Your task to perform on an android device: Clear the shopping cart on newegg.com. Add panasonic triple a to the cart on newegg.com, then select checkout. Image 0: 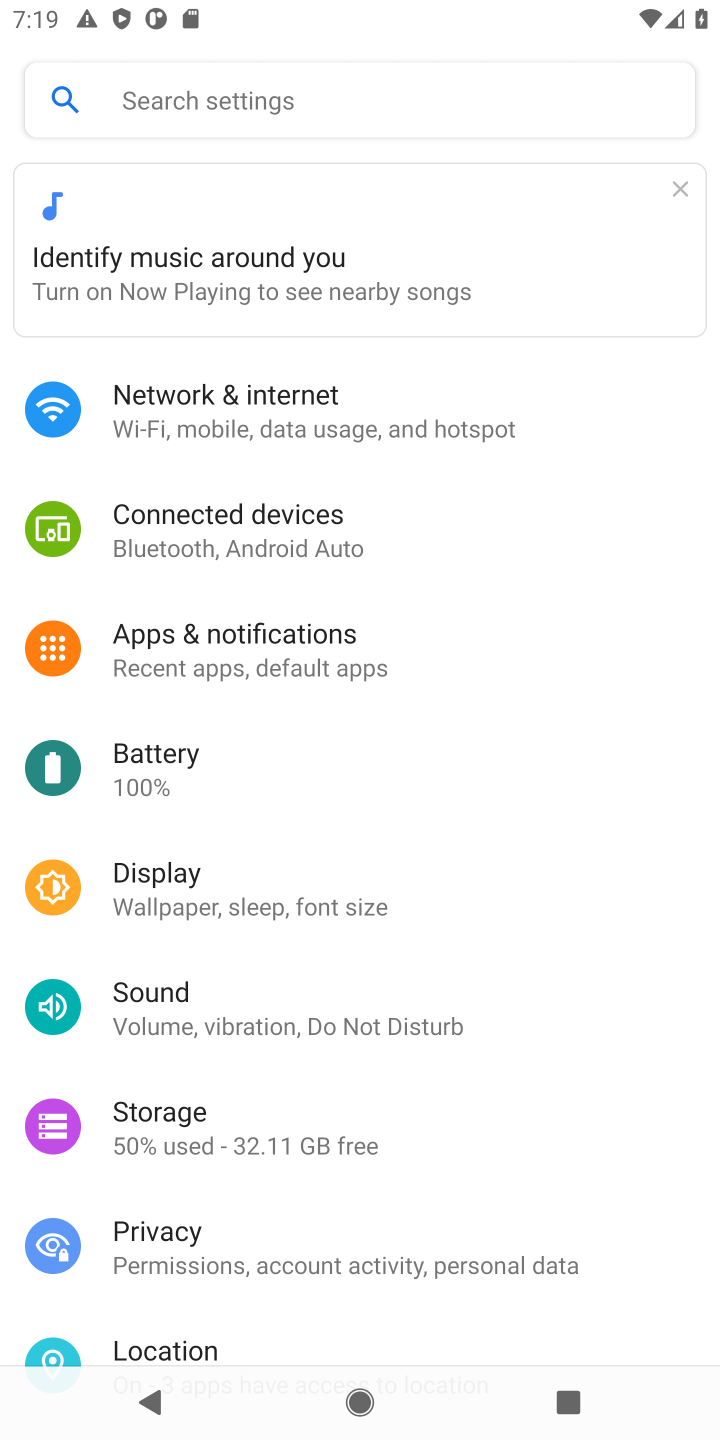
Step 0: press home button
Your task to perform on an android device: Clear the shopping cart on newegg.com. Add panasonic triple a to the cart on newegg.com, then select checkout. Image 1: 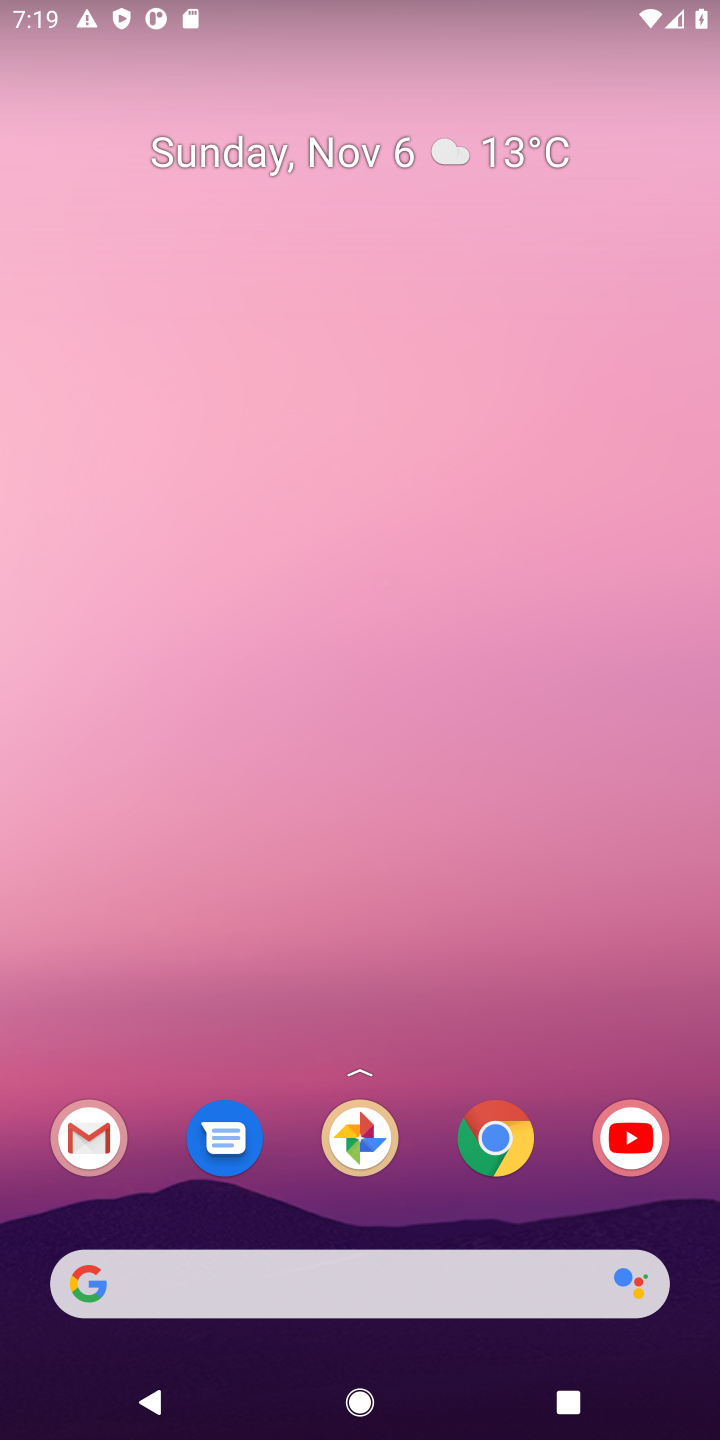
Step 1: click (489, 1165)
Your task to perform on an android device: Clear the shopping cart on newegg.com. Add panasonic triple a to the cart on newegg.com, then select checkout. Image 2: 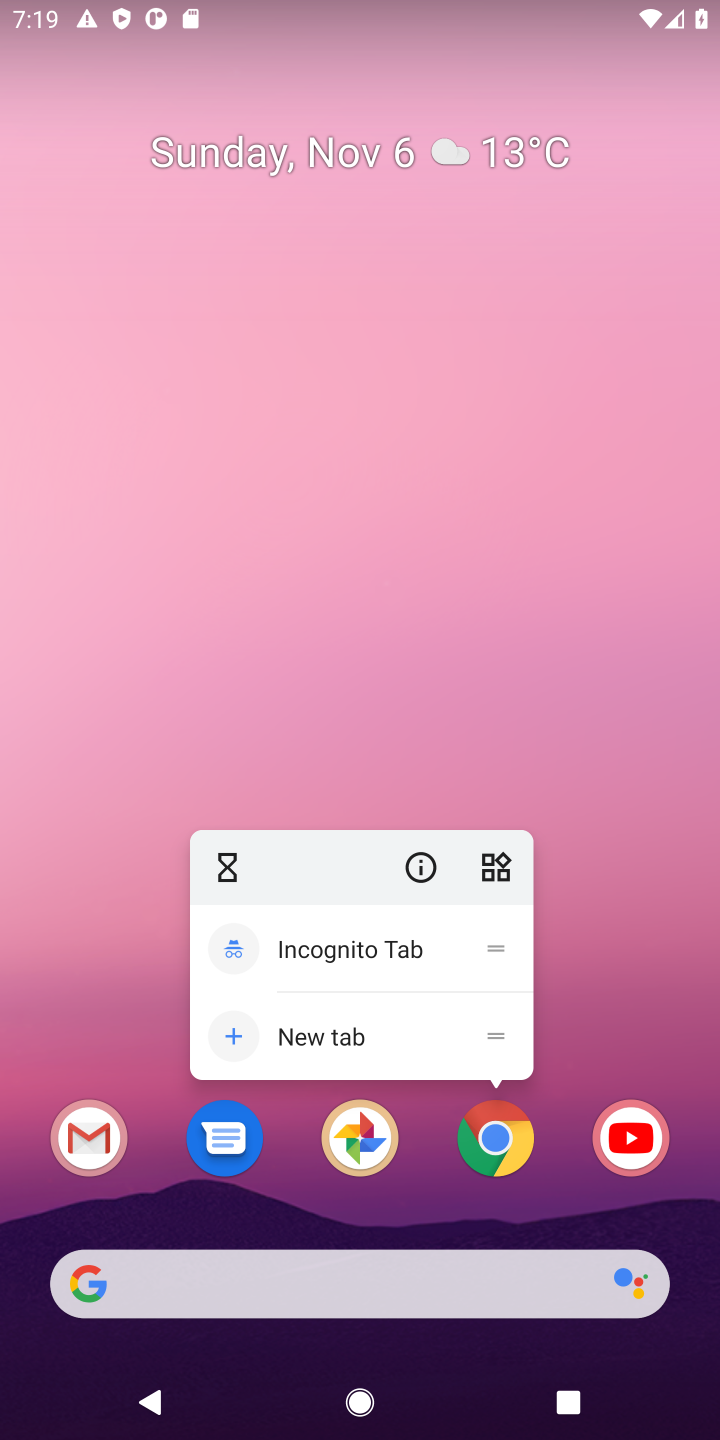
Step 2: click (494, 1153)
Your task to perform on an android device: Clear the shopping cart on newegg.com. Add panasonic triple a to the cart on newegg.com, then select checkout. Image 3: 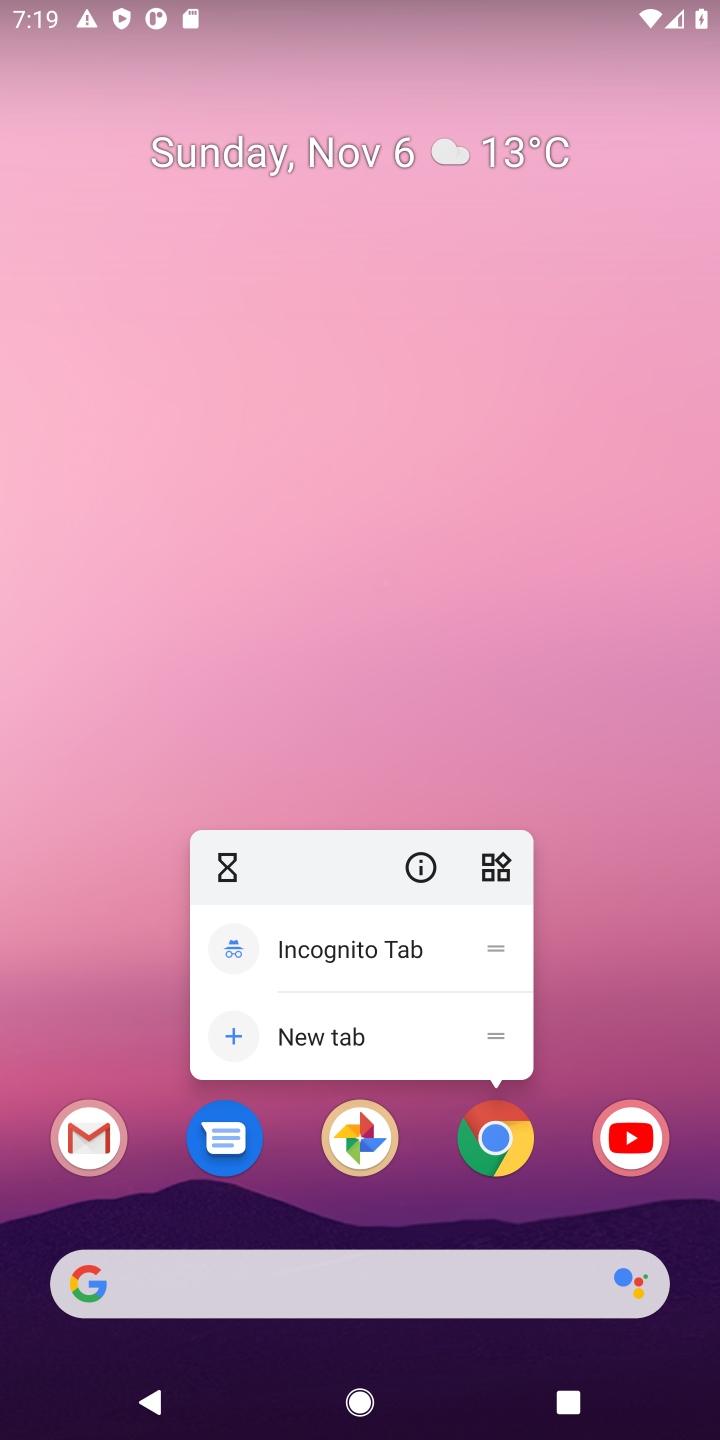
Step 3: click (494, 1150)
Your task to perform on an android device: Clear the shopping cart on newegg.com. Add panasonic triple a to the cart on newegg.com, then select checkout. Image 4: 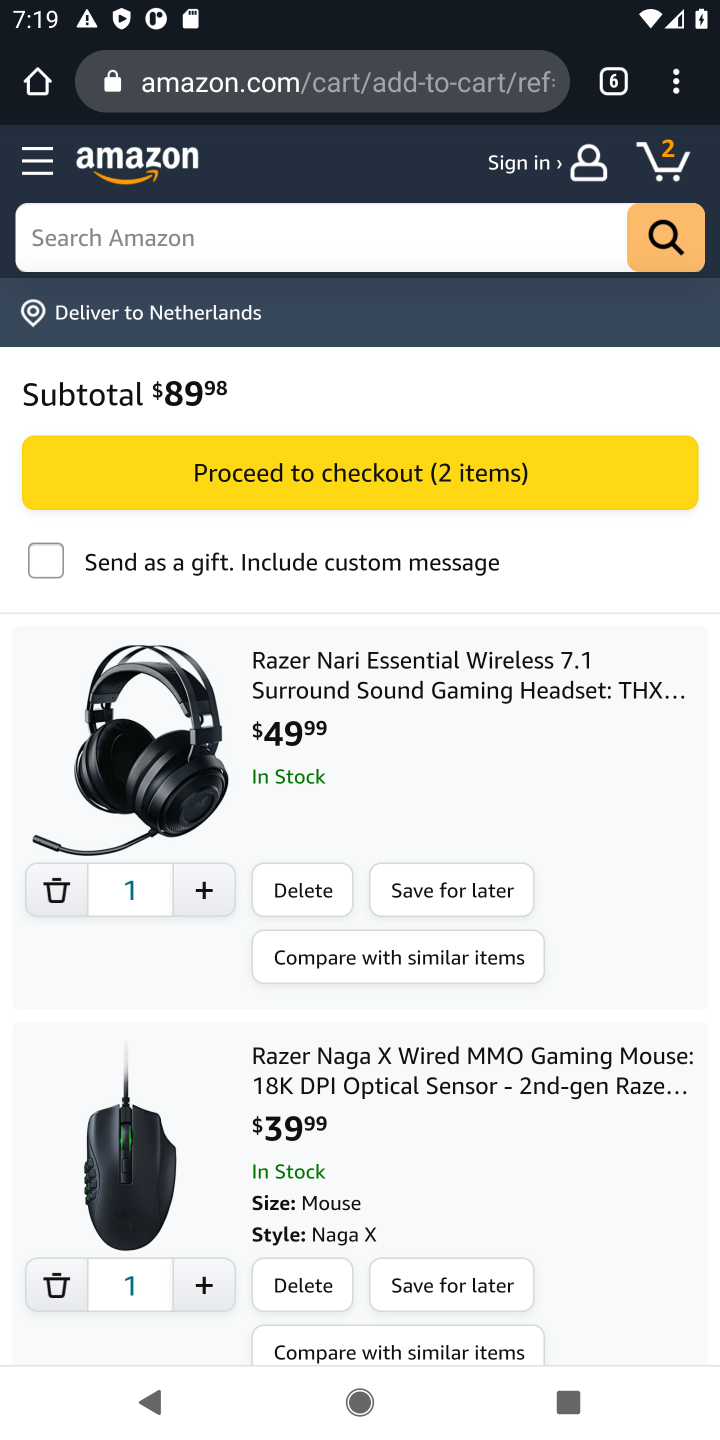
Step 4: click (316, 235)
Your task to perform on an android device: Clear the shopping cart on newegg.com. Add panasonic triple a to the cart on newegg.com, then select checkout. Image 5: 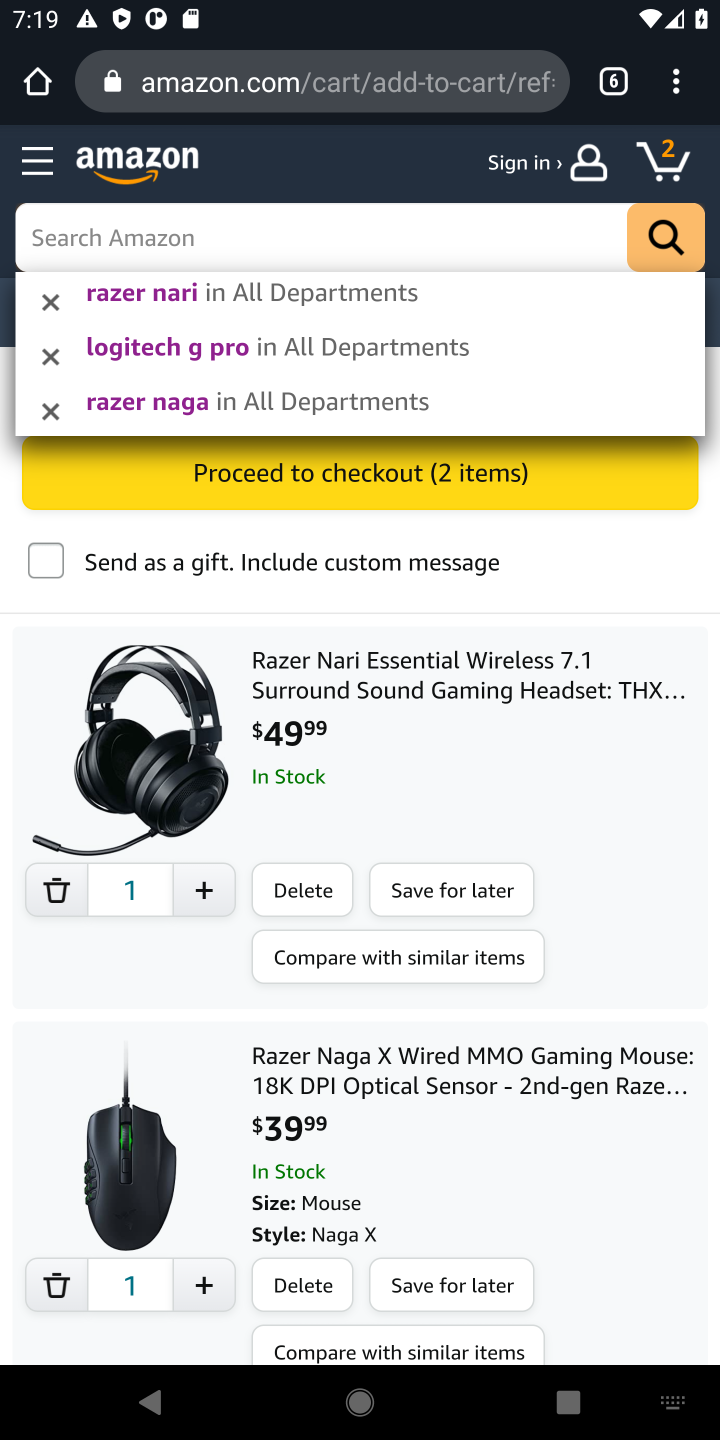
Step 5: type "news egg"
Your task to perform on an android device: Clear the shopping cart on newegg.com. Add panasonic triple a to the cart on newegg.com, then select checkout. Image 6: 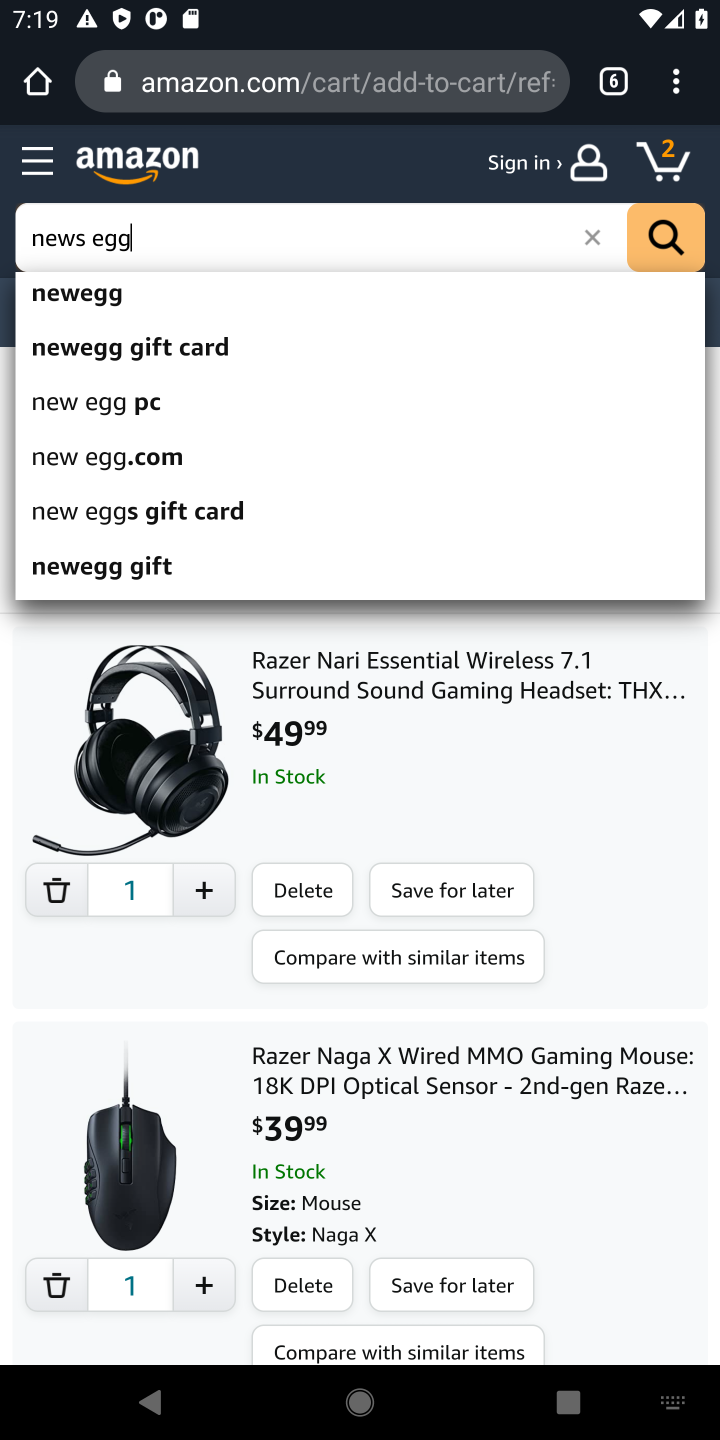
Step 6: click (626, 77)
Your task to perform on an android device: Clear the shopping cart on newegg.com. Add panasonic triple a to the cart on newegg.com, then select checkout. Image 7: 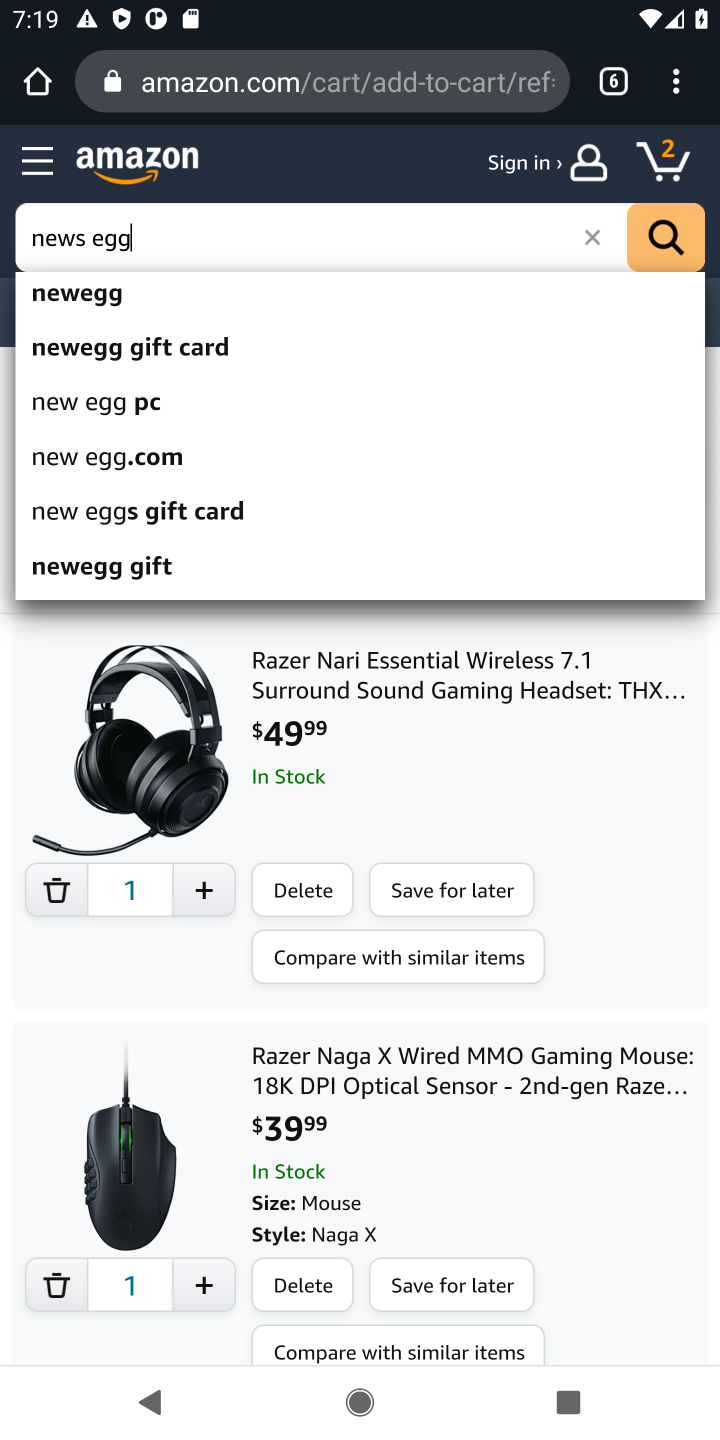
Step 7: click (604, 83)
Your task to perform on an android device: Clear the shopping cart on newegg.com. Add panasonic triple a to the cart on newegg.com, then select checkout. Image 8: 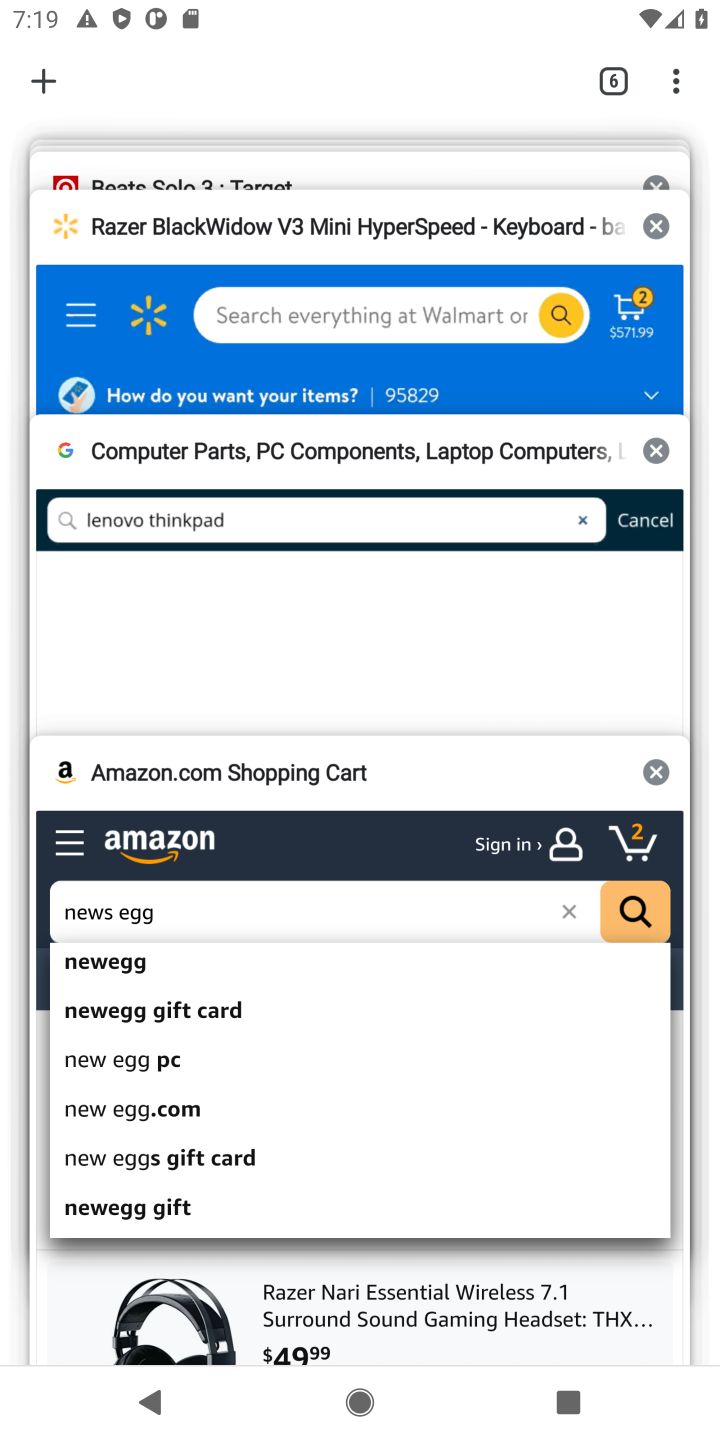
Step 8: drag from (313, 257) to (383, 1341)
Your task to perform on an android device: Clear the shopping cart on newegg.com. Add panasonic triple a to the cart on newegg.com, then select checkout. Image 9: 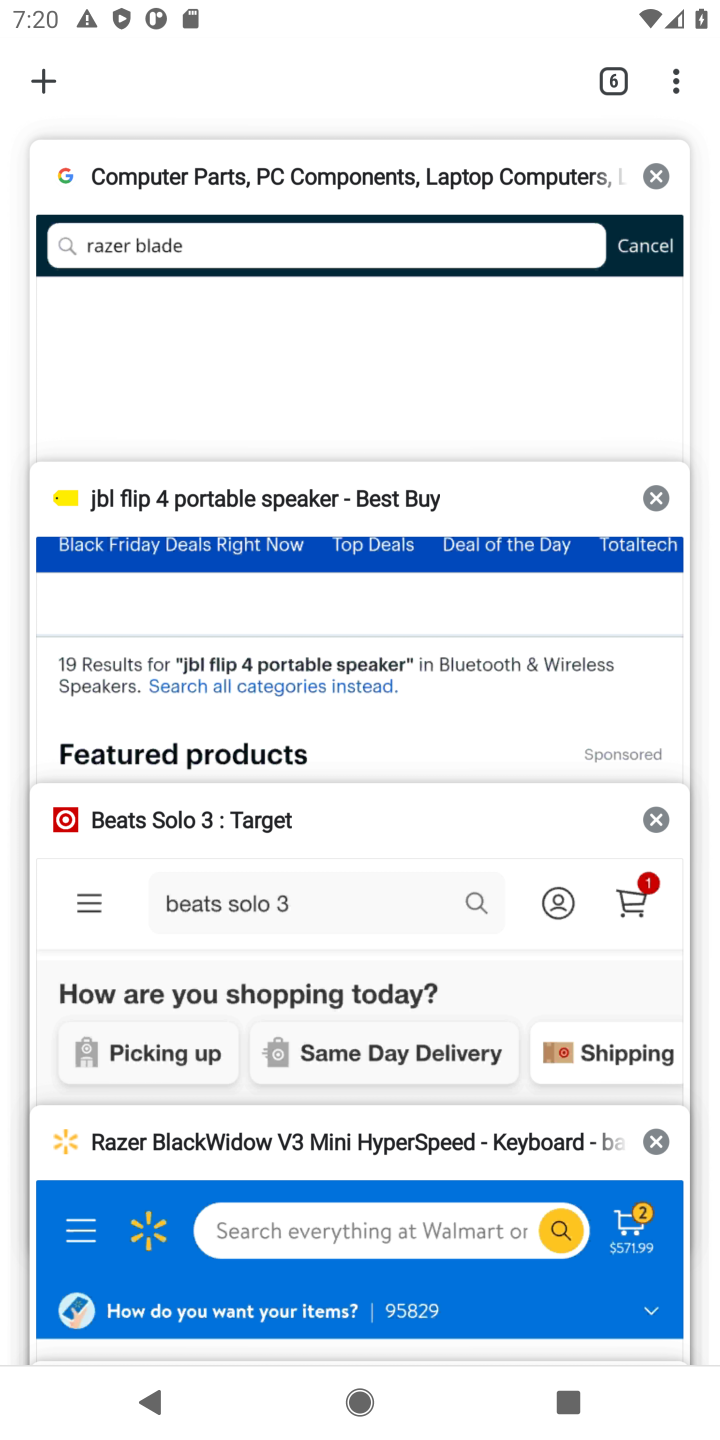
Step 9: drag from (230, 322) to (218, 1389)
Your task to perform on an android device: Clear the shopping cart on newegg.com. Add panasonic triple a to the cart on newegg.com, then select checkout. Image 10: 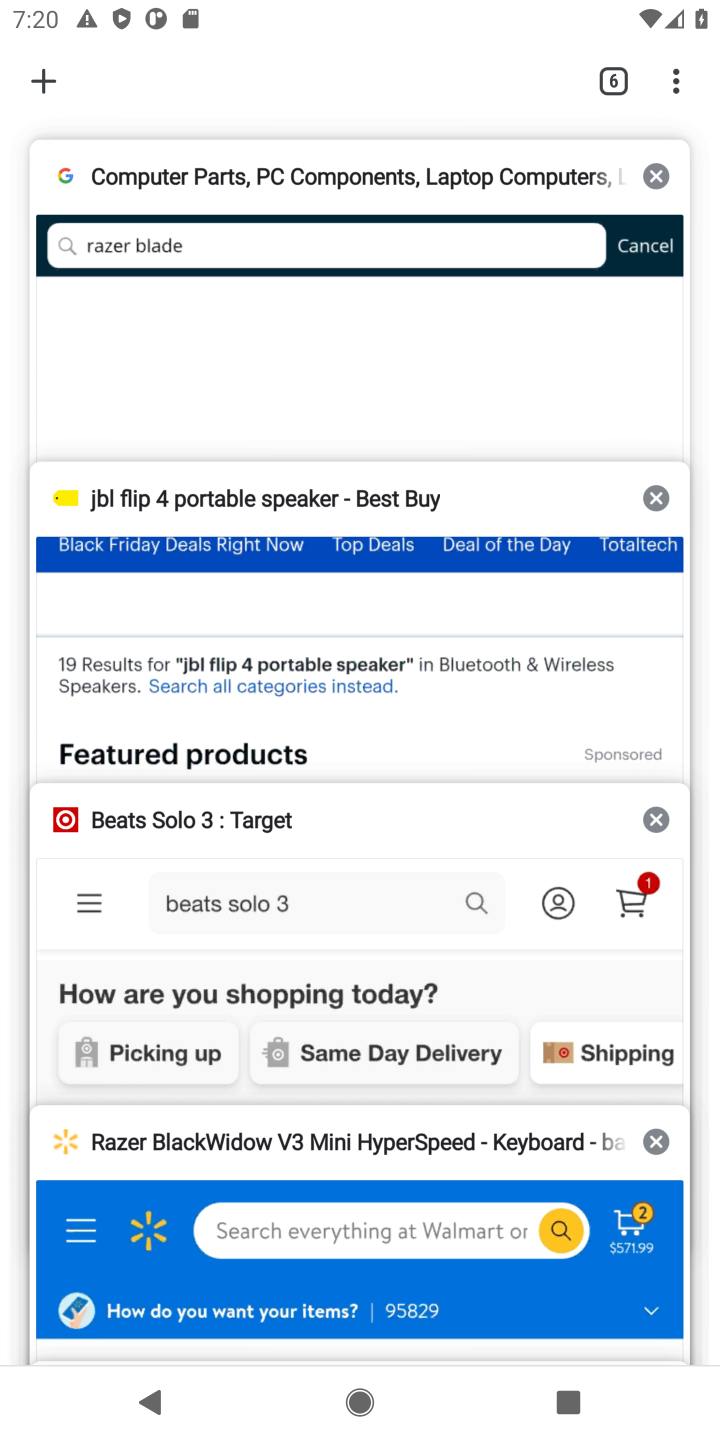
Step 10: click (26, 71)
Your task to perform on an android device: Clear the shopping cart on newegg.com. Add panasonic triple a to the cart on newegg.com, then select checkout. Image 11: 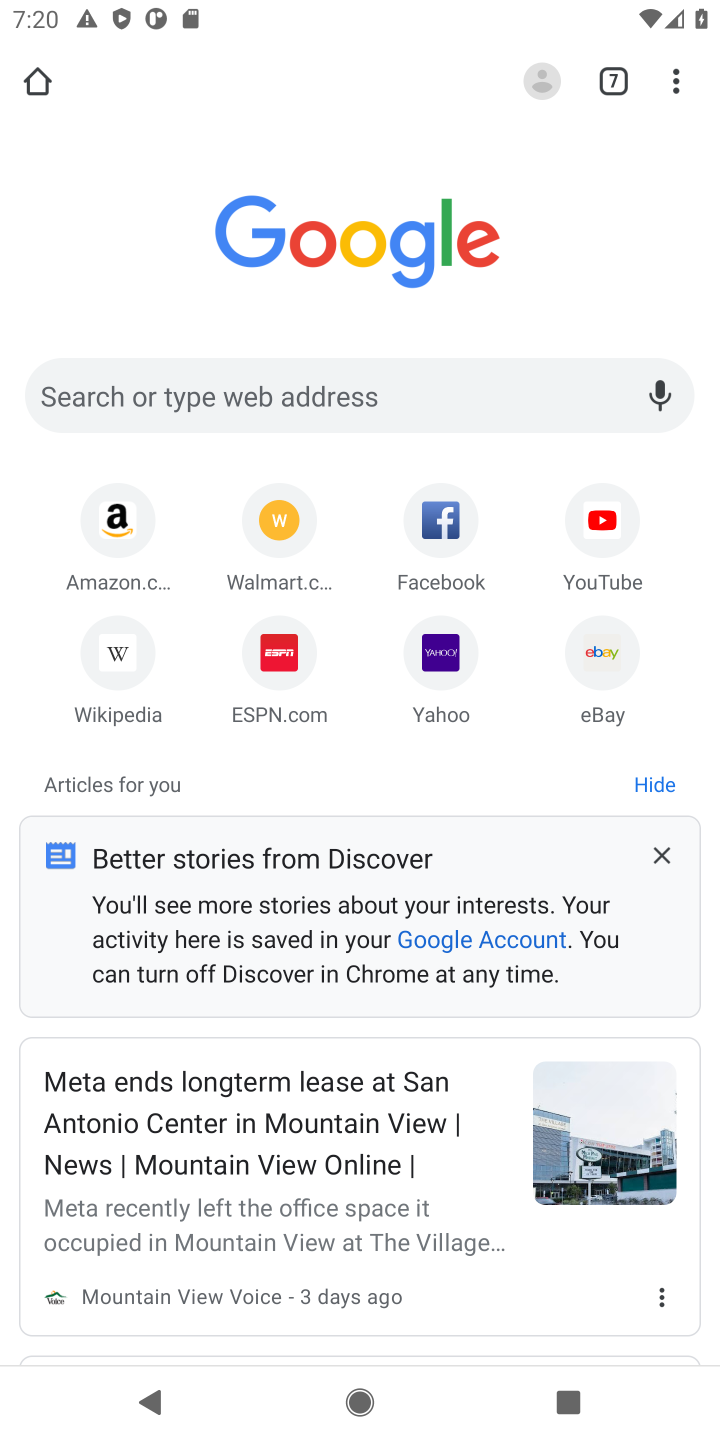
Step 11: click (174, 403)
Your task to perform on an android device: Clear the shopping cart on newegg.com. Add panasonic triple a to the cart on newegg.com, then select checkout. Image 12: 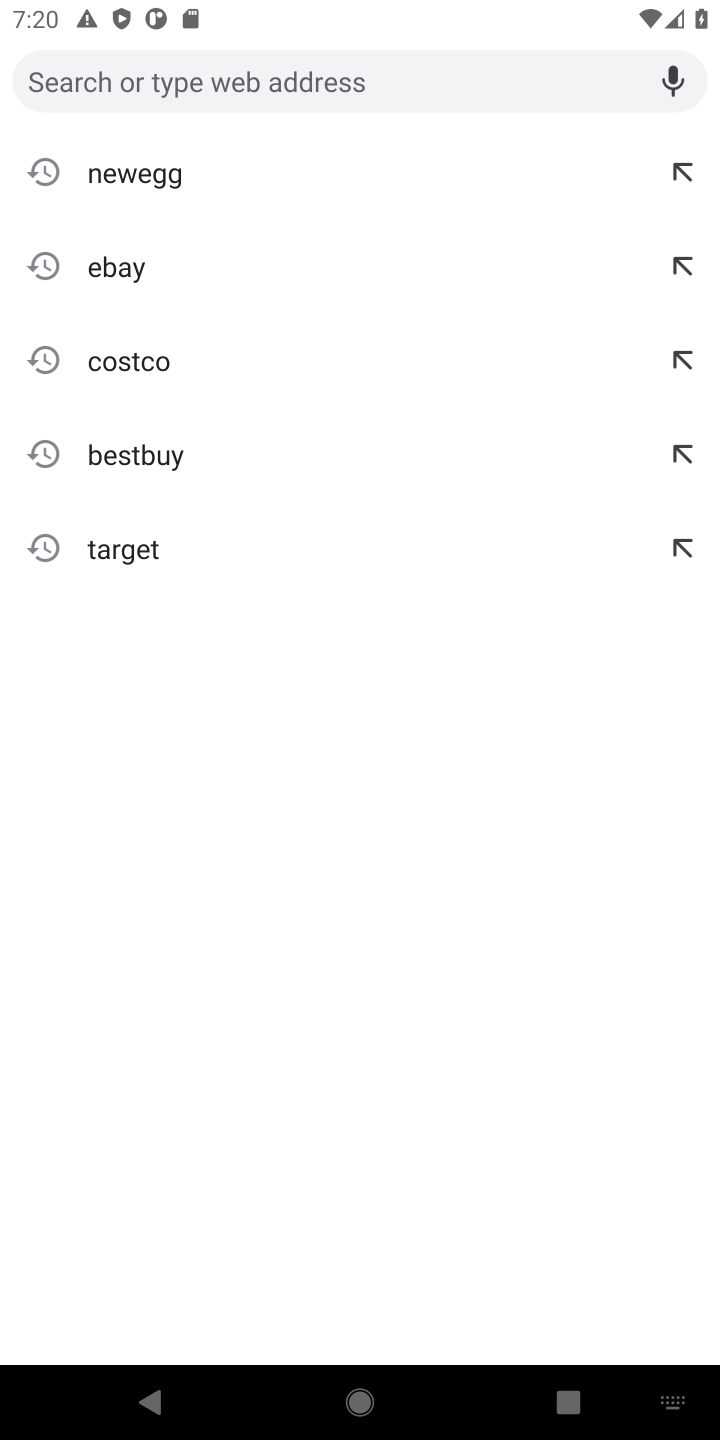
Step 12: click (167, 174)
Your task to perform on an android device: Clear the shopping cart on newegg.com. Add panasonic triple a to the cart on newegg.com, then select checkout. Image 13: 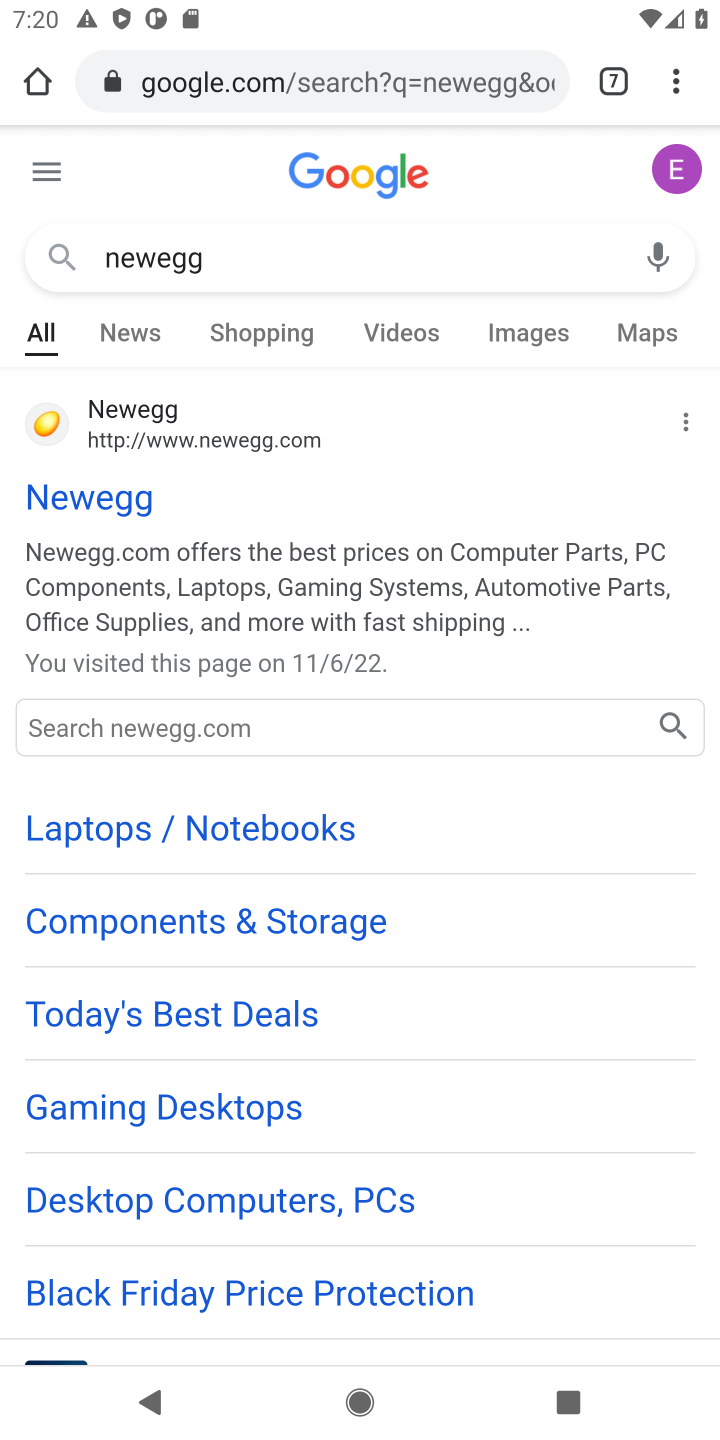
Step 13: click (83, 481)
Your task to perform on an android device: Clear the shopping cart on newegg.com. Add panasonic triple a to the cart on newegg.com, then select checkout. Image 14: 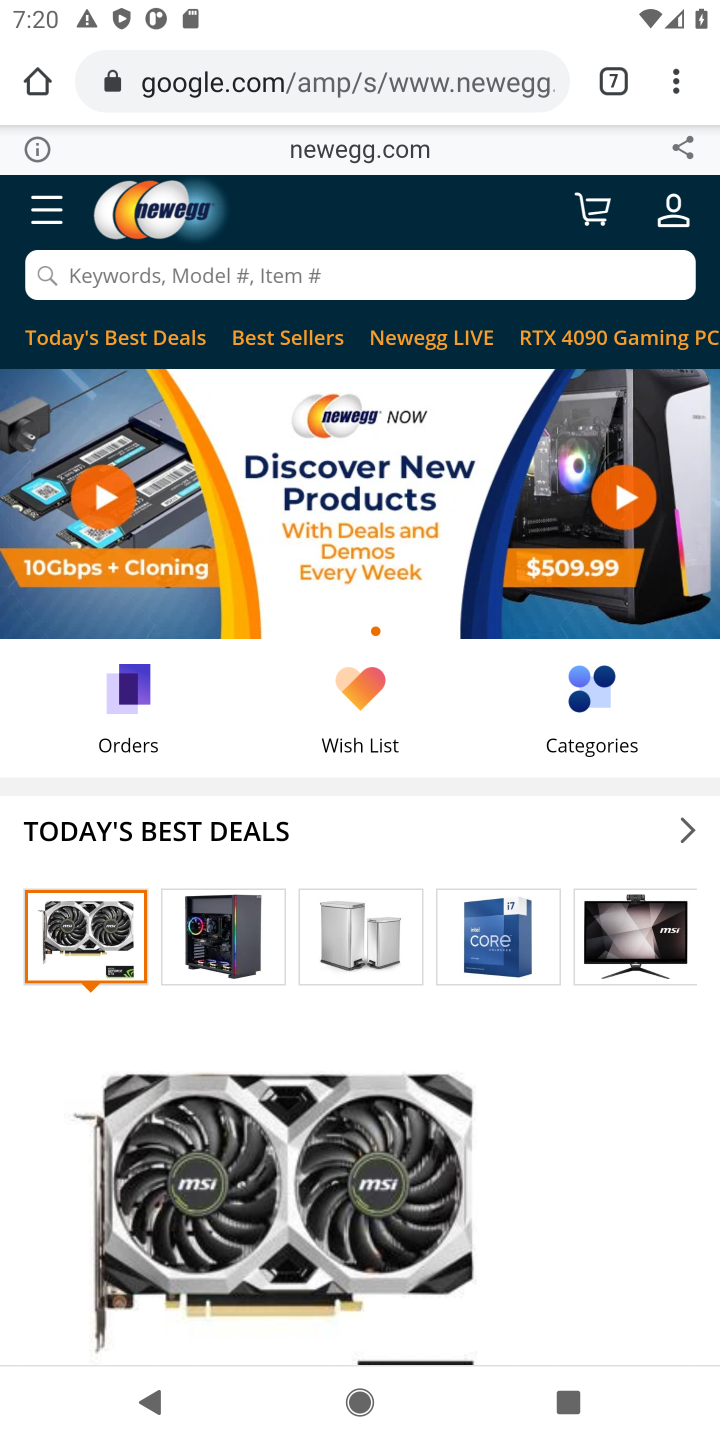
Step 14: click (131, 274)
Your task to perform on an android device: Clear the shopping cart on newegg.com. Add panasonic triple a to the cart on newegg.com, then select checkout. Image 15: 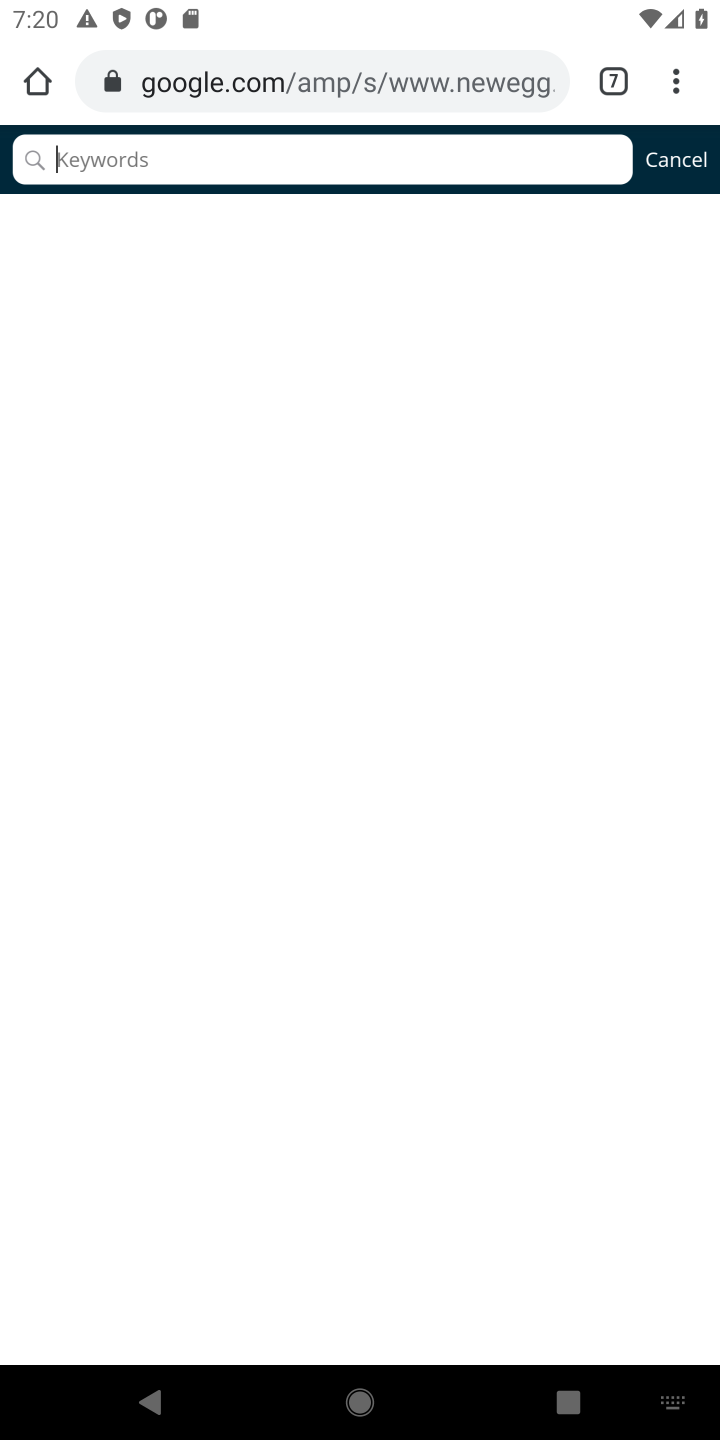
Step 15: type "panasonic triple a"
Your task to perform on an android device: Clear the shopping cart on newegg.com. Add panasonic triple a to the cart on newegg.com, then select checkout. Image 16: 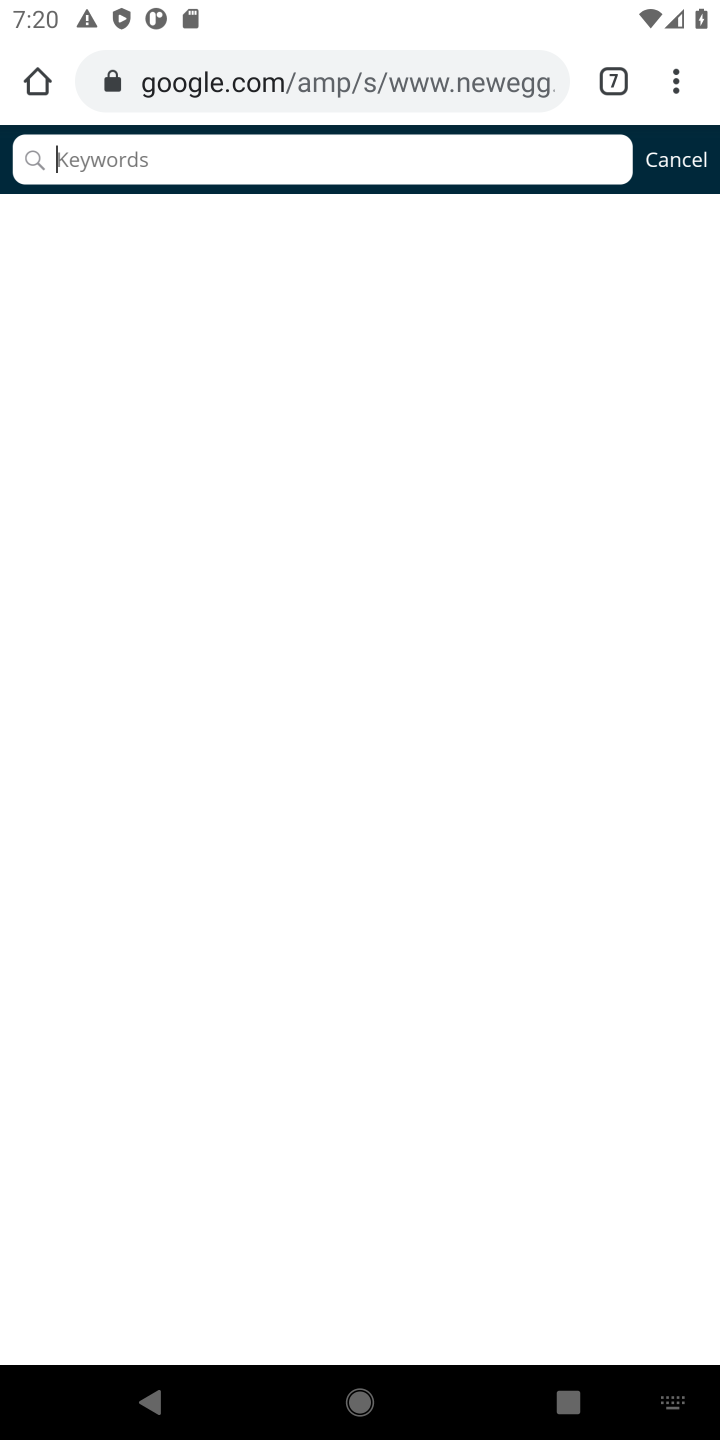
Step 16: click (501, 1047)
Your task to perform on an android device: Clear the shopping cart on newegg.com. Add panasonic triple a to the cart on newegg.com, then select checkout. Image 17: 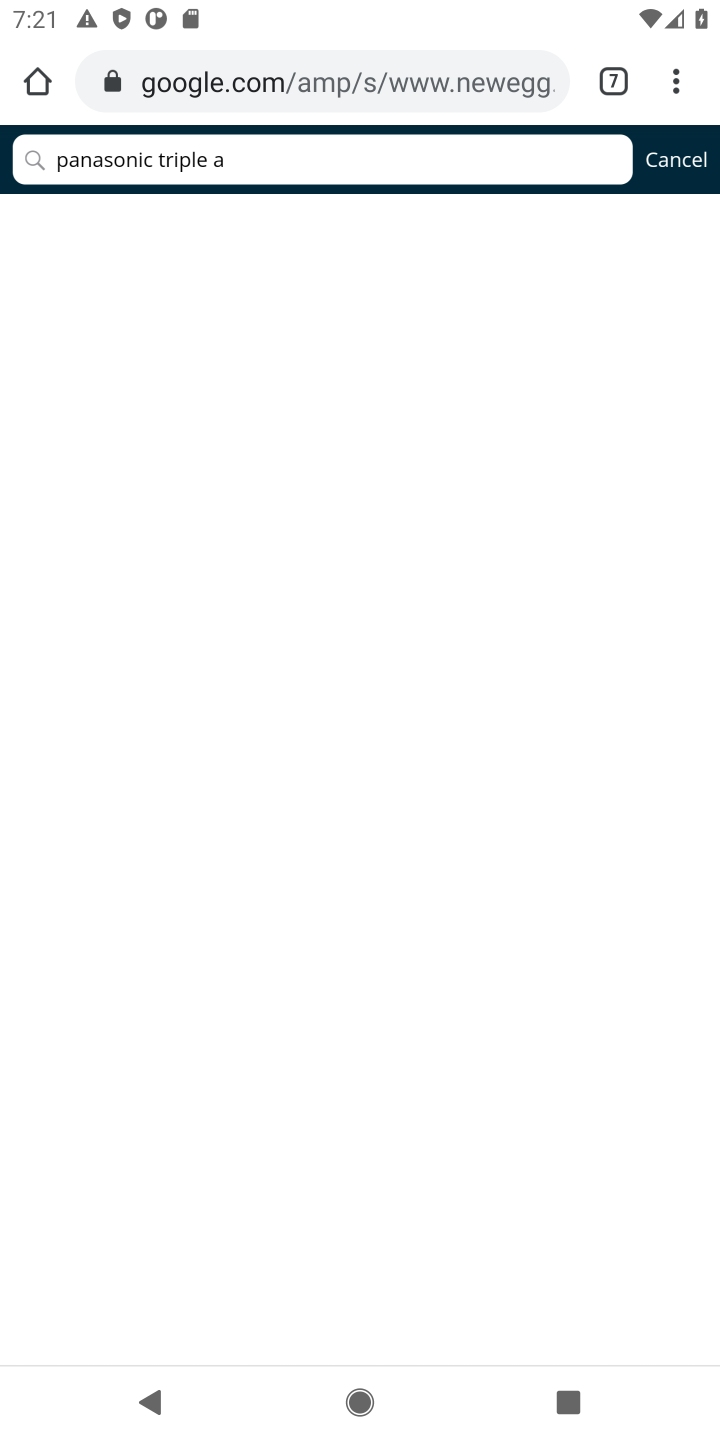
Step 17: task complete